Your task to perform on an android device: all mails in gmail Image 0: 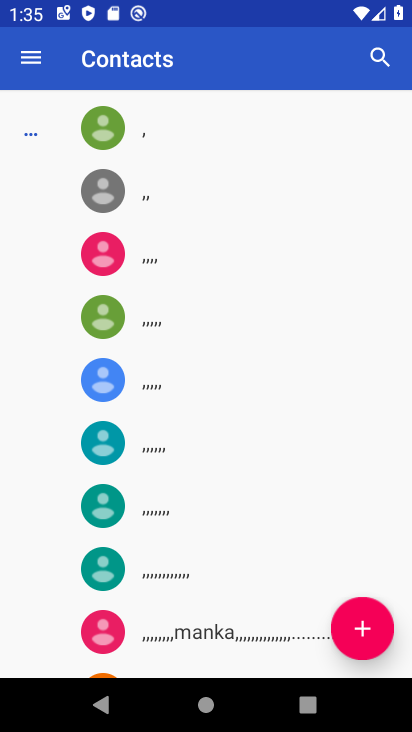
Step 0: press home button
Your task to perform on an android device: all mails in gmail Image 1: 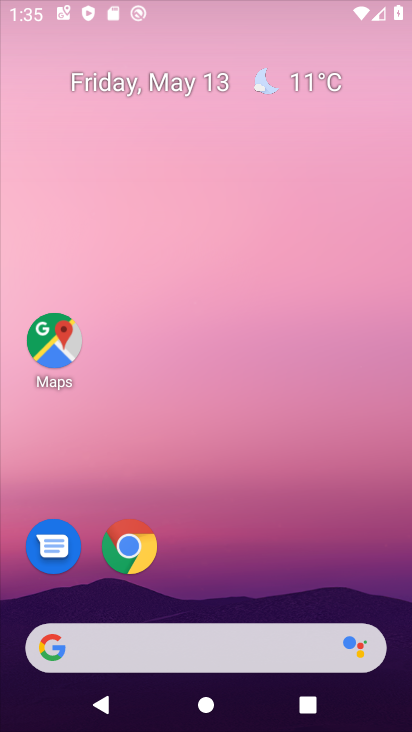
Step 1: drag from (247, 708) to (297, 104)
Your task to perform on an android device: all mails in gmail Image 2: 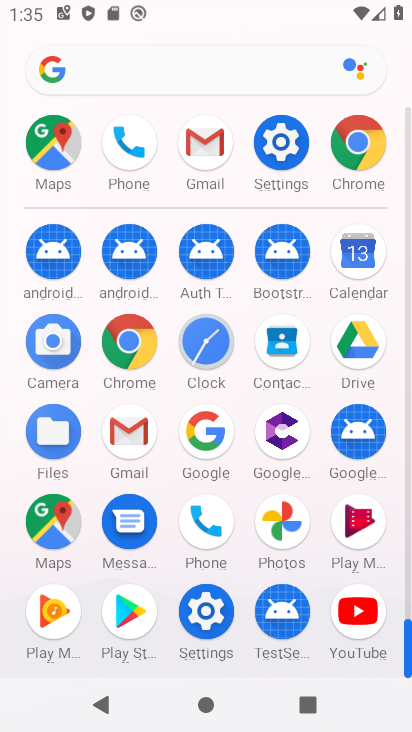
Step 2: click (139, 443)
Your task to perform on an android device: all mails in gmail Image 3: 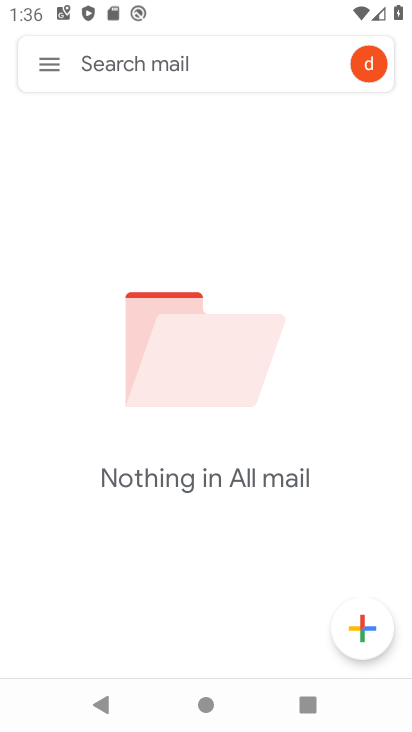
Step 3: task complete